Your task to perform on an android device: find photos in the google photos app Image 0: 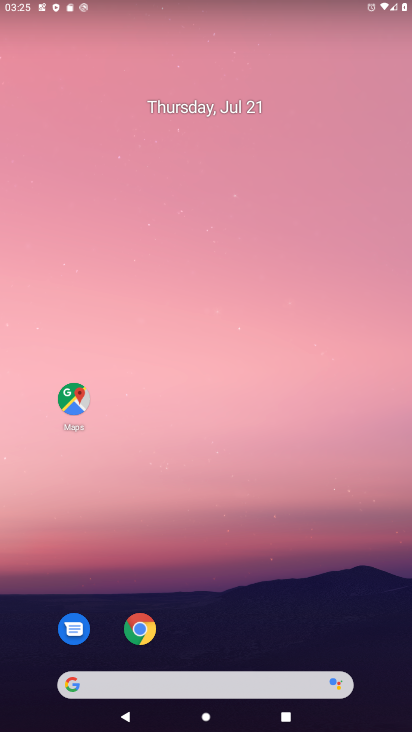
Step 0: press home button
Your task to perform on an android device: find photos in the google photos app Image 1: 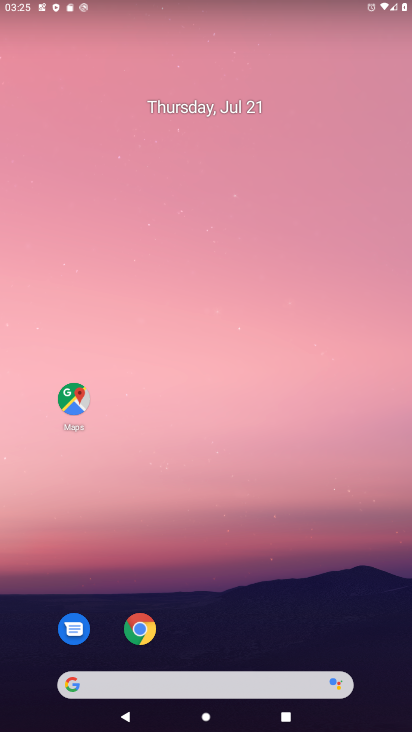
Step 1: drag from (323, 711) to (204, 208)
Your task to perform on an android device: find photos in the google photos app Image 2: 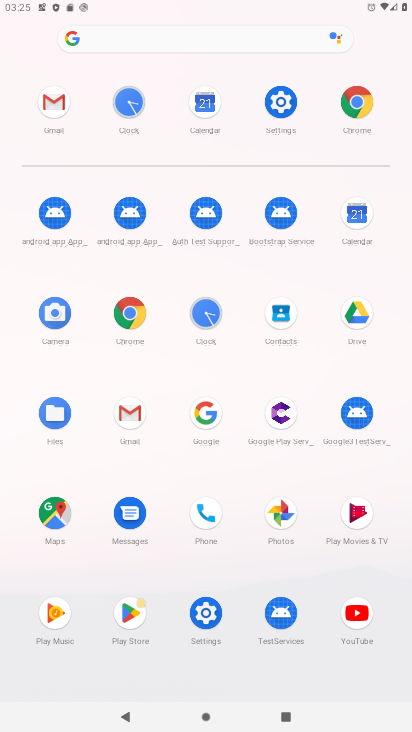
Step 2: click (294, 530)
Your task to perform on an android device: find photos in the google photos app Image 3: 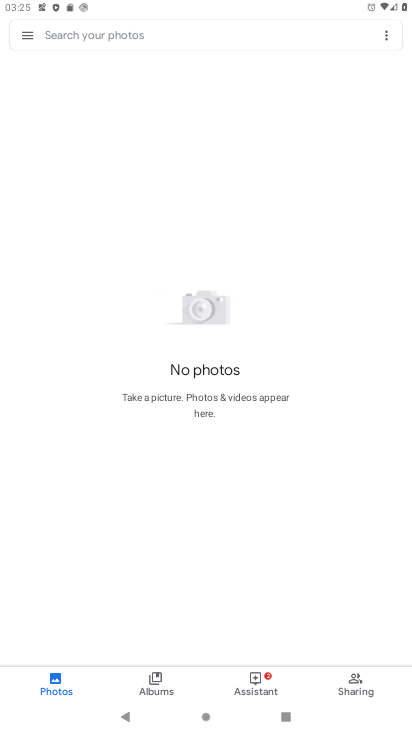
Step 3: task complete